Your task to perform on an android device: Go to Google maps Image 0: 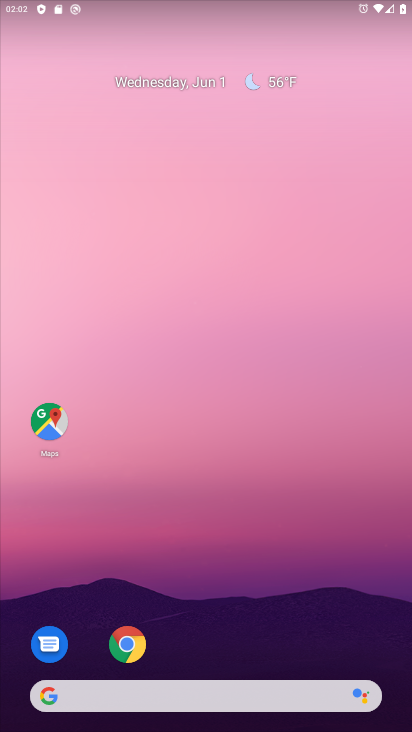
Step 0: task complete